Your task to perform on an android device: Open the map Image 0: 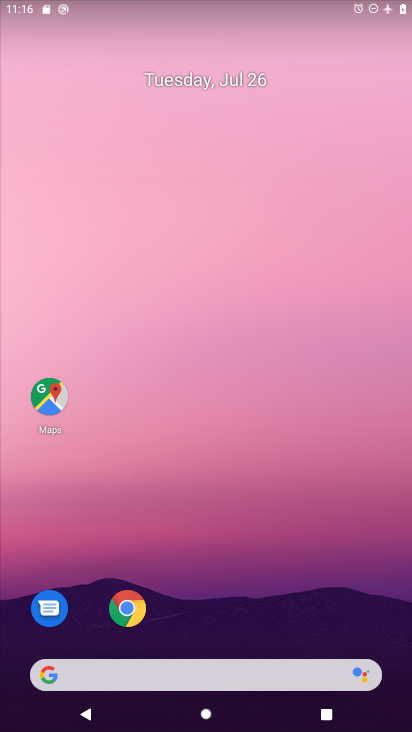
Step 0: drag from (307, 540) to (236, 51)
Your task to perform on an android device: Open the map Image 1: 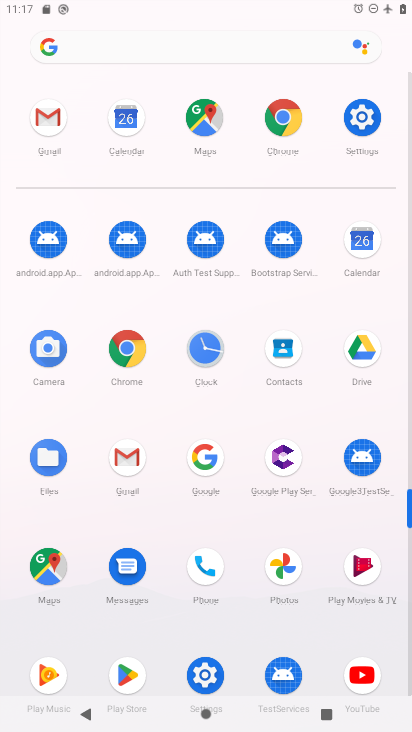
Step 1: click (216, 115)
Your task to perform on an android device: Open the map Image 2: 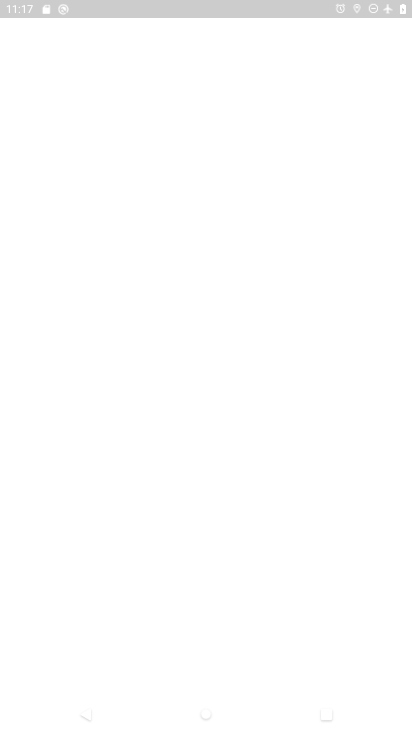
Step 2: task complete